Your task to perform on an android device: What is the news today? Image 0: 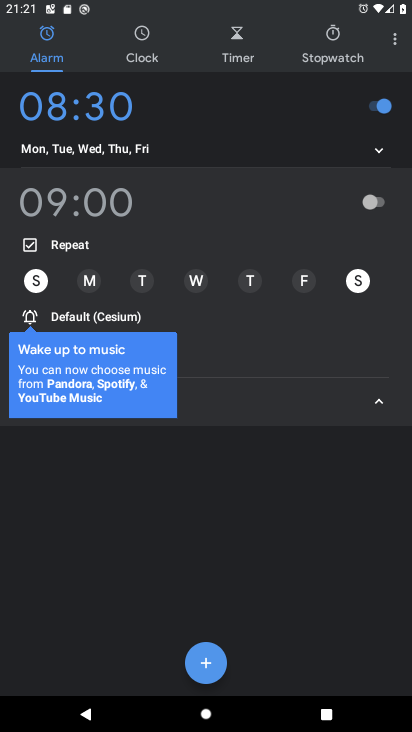
Step 0: press home button
Your task to perform on an android device: What is the news today? Image 1: 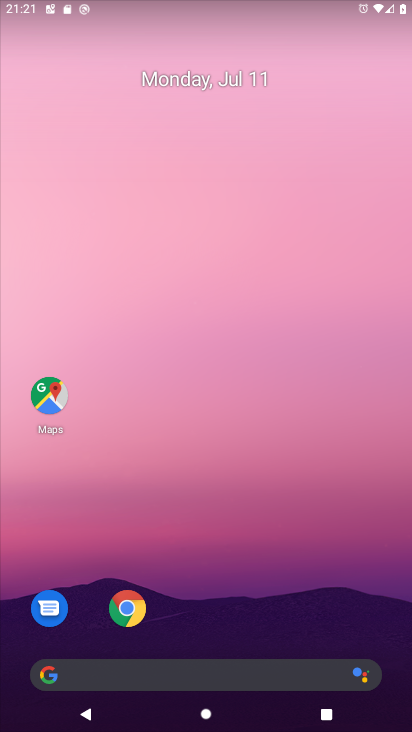
Step 1: click (143, 676)
Your task to perform on an android device: What is the news today? Image 2: 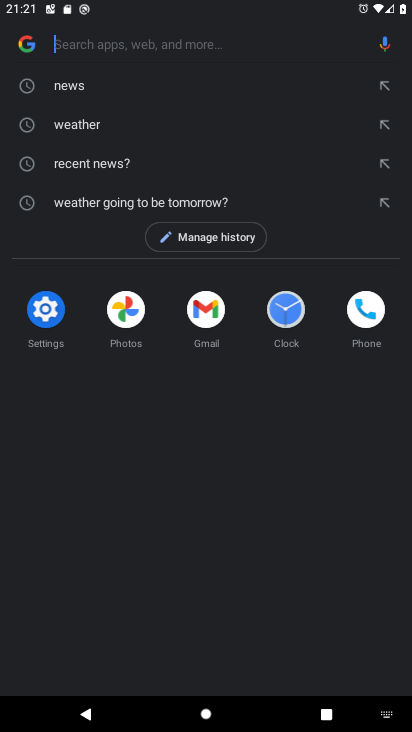
Step 2: click (149, 85)
Your task to perform on an android device: What is the news today? Image 3: 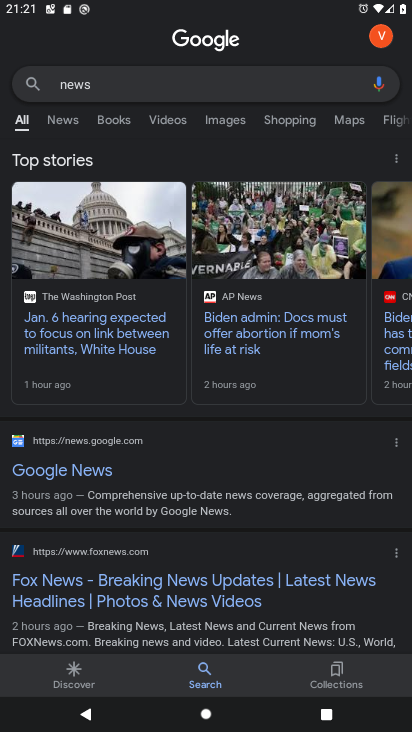
Step 3: task complete